Your task to perform on an android device: Go to Maps Image 0: 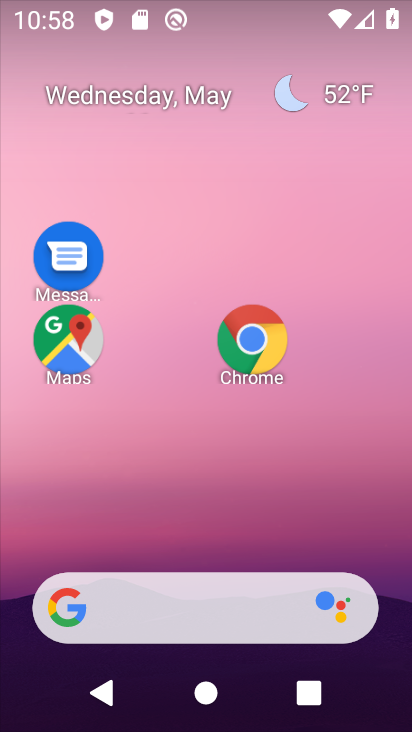
Step 0: click (81, 336)
Your task to perform on an android device: Go to Maps Image 1: 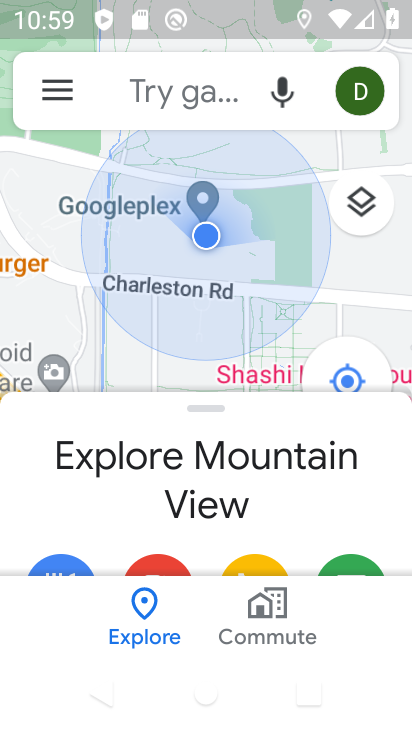
Step 1: task complete